Your task to perform on an android device: Add razer kraken to the cart on newegg Image 0: 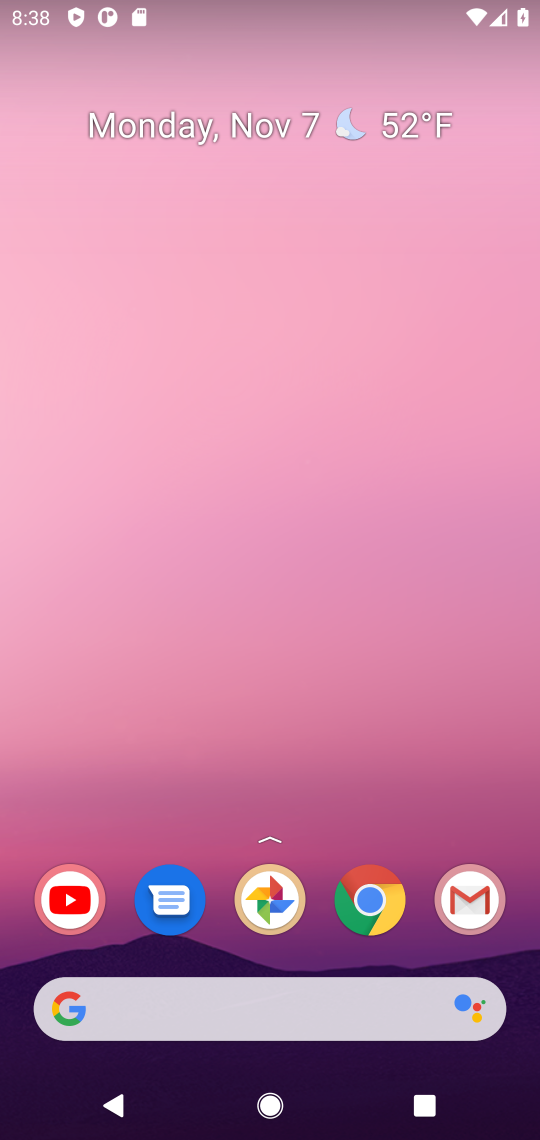
Step 0: click (270, 1027)
Your task to perform on an android device: Add razer kraken to the cart on newegg Image 1: 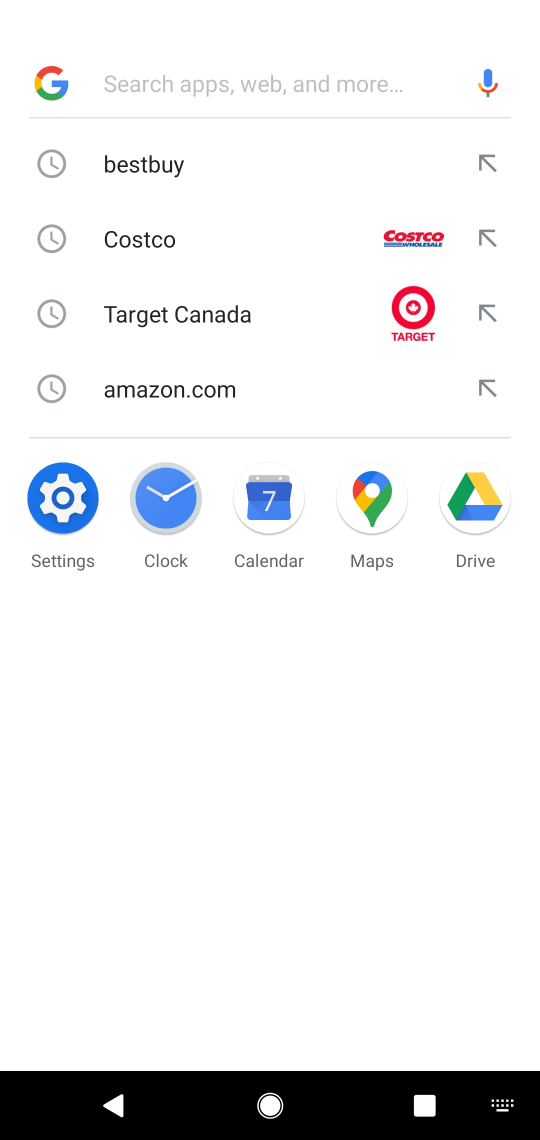
Step 1: type "newegg"
Your task to perform on an android device: Add razer kraken to the cart on newegg Image 2: 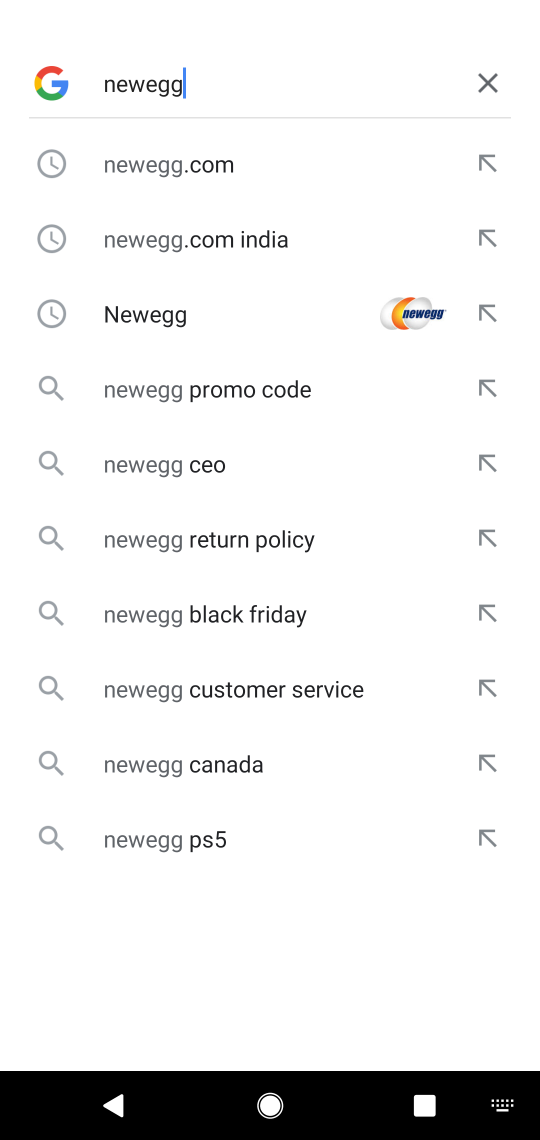
Step 2: click (231, 191)
Your task to perform on an android device: Add razer kraken to the cart on newegg Image 3: 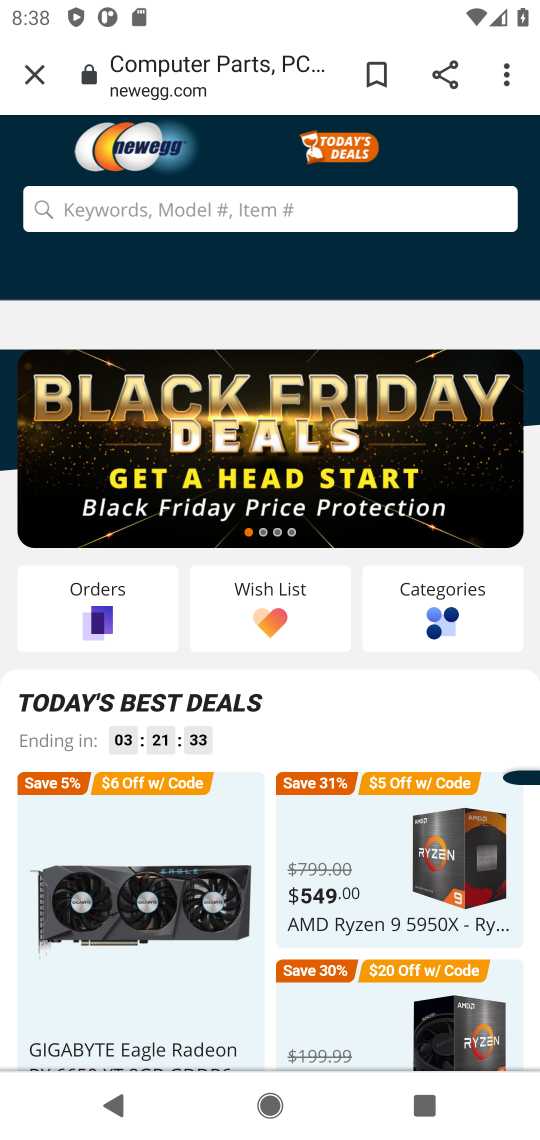
Step 3: click (231, 196)
Your task to perform on an android device: Add razer kraken to the cart on newegg Image 4: 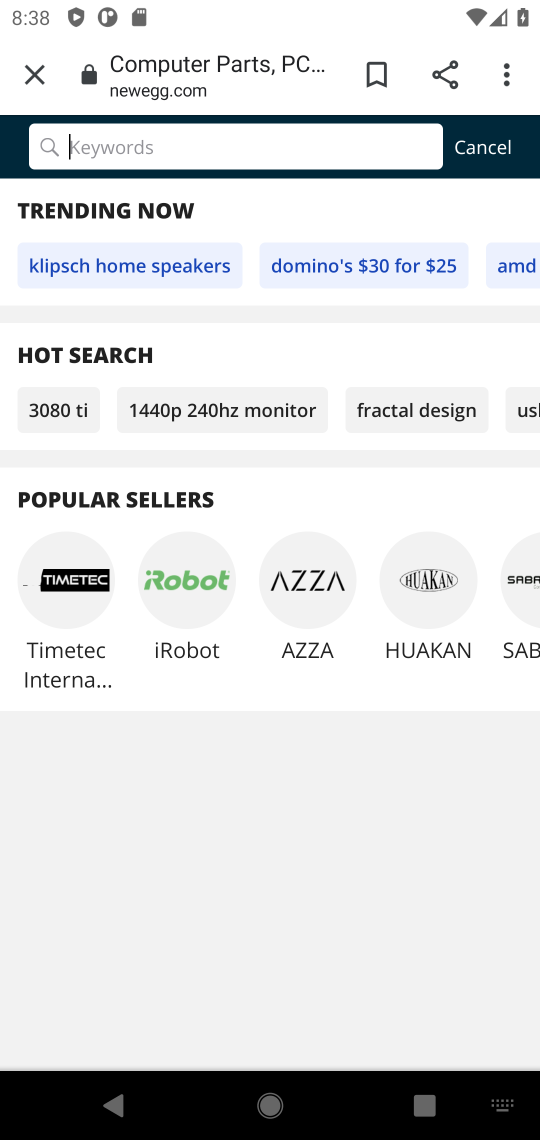
Step 4: type "razer karken"
Your task to perform on an android device: Add razer kraken to the cart on newegg Image 5: 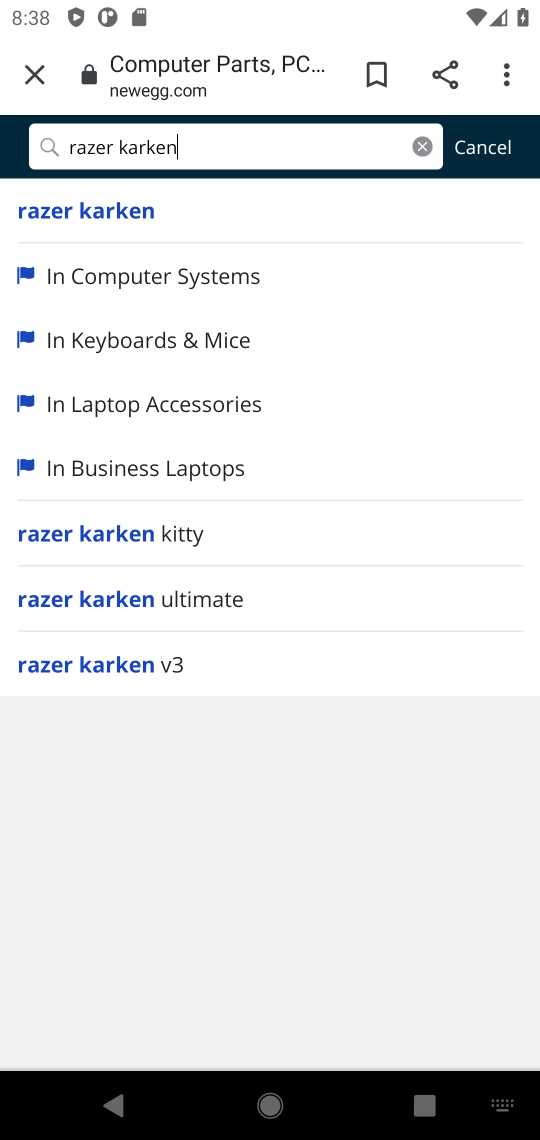
Step 5: click (128, 225)
Your task to perform on an android device: Add razer kraken to the cart on newegg Image 6: 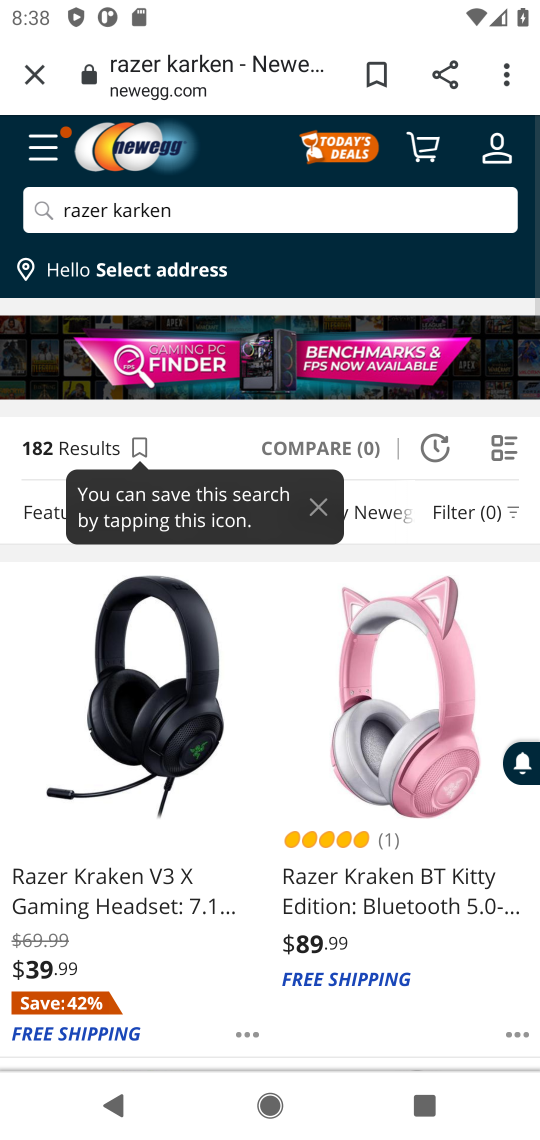
Step 6: click (173, 822)
Your task to perform on an android device: Add razer kraken to the cart on newegg Image 7: 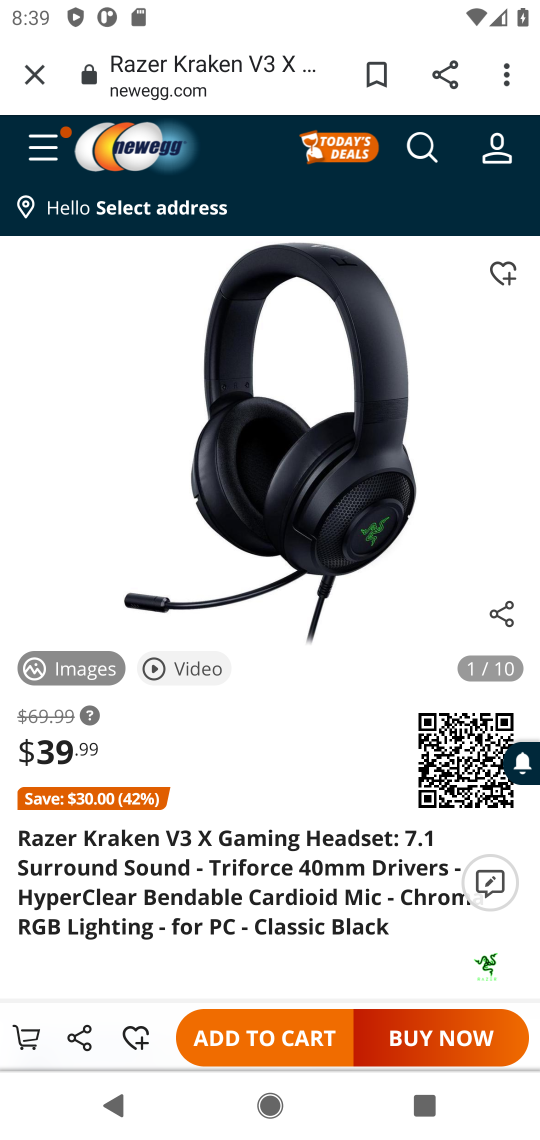
Step 7: click (257, 1051)
Your task to perform on an android device: Add razer kraken to the cart on newegg Image 8: 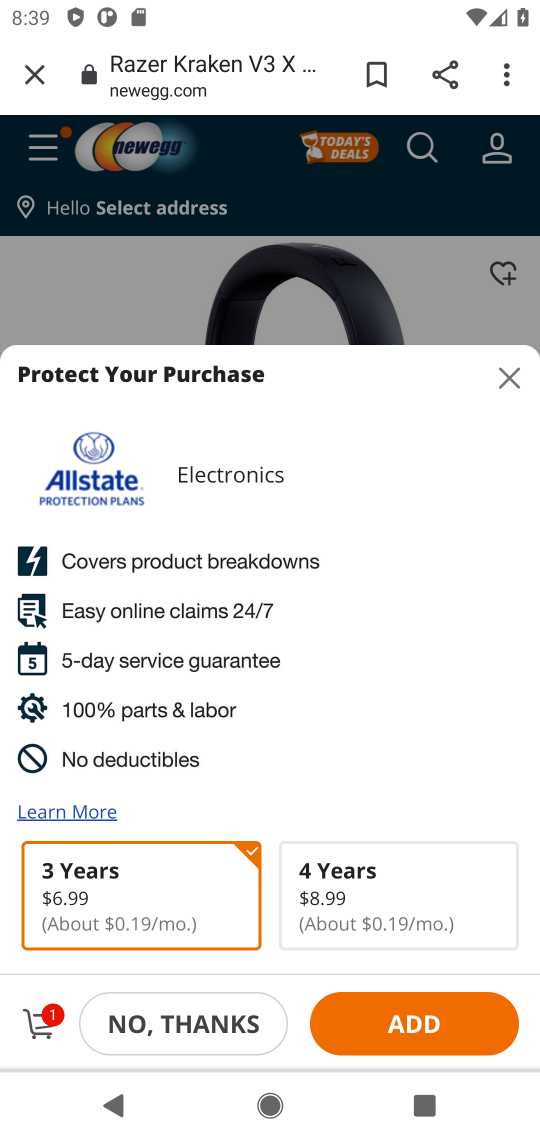
Step 8: click (447, 1019)
Your task to perform on an android device: Add razer kraken to the cart on newegg Image 9: 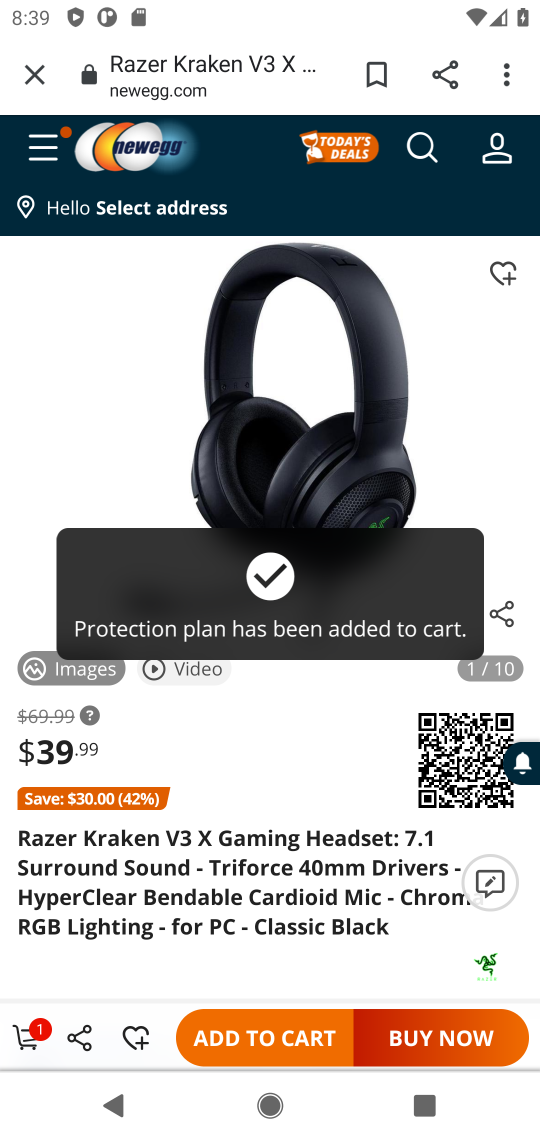
Step 9: task complete